Your task to perform on an android device: Find coffee shops on Maps Image 0: 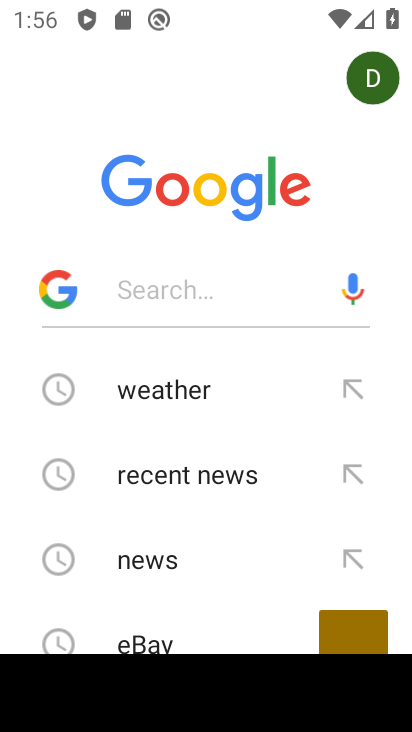
Step 0: press home button
Your task to perform on an android device: Find coffee shops on Maps Image 1: 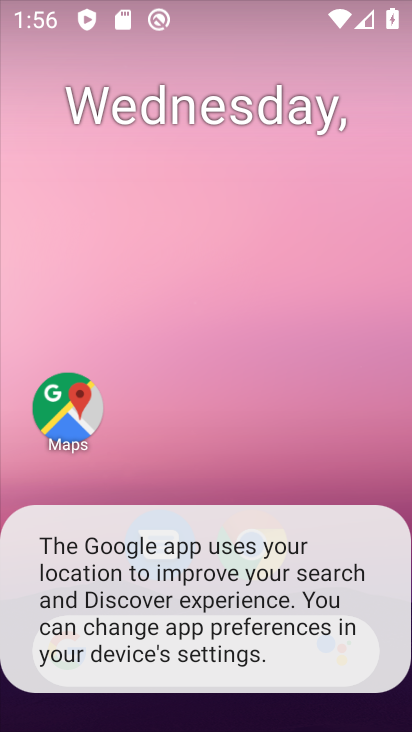
Step 1: click (71, 383)
Your task to perform on an android device: Find coffee shops on Maps Image 2: 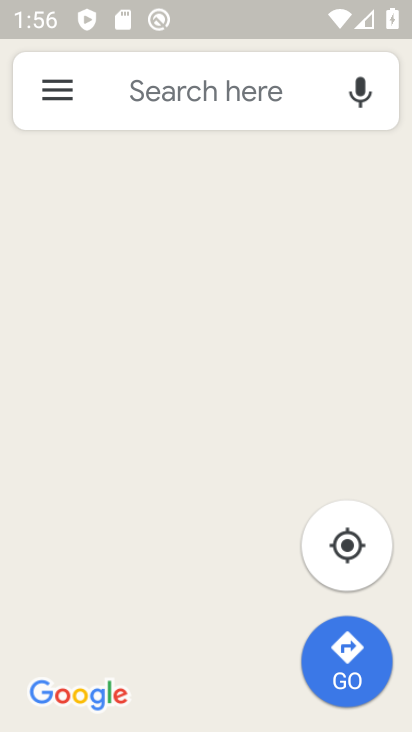
Step 2: click (198, 89)
Your task to perform on an android device: Find coffee shops on Maps Image 3: 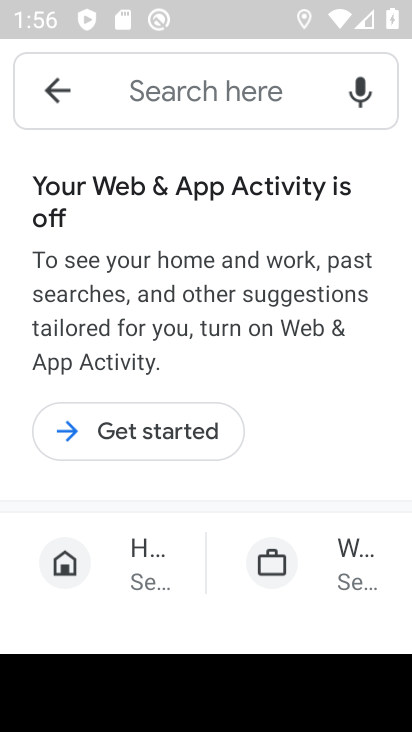
Step 3: type "coffee shops"
Your task to perform on an android device: Find coffee shops on Maps Image 4: 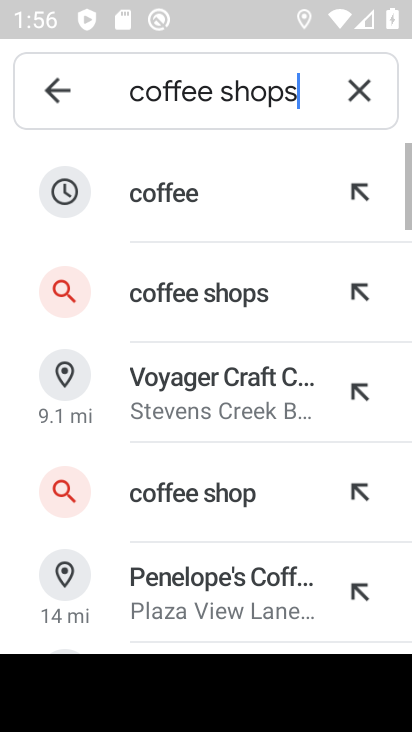
Step 4: click (173, 189)
Your task to perform on an android device: Find coffee shops on Maps Image 5: 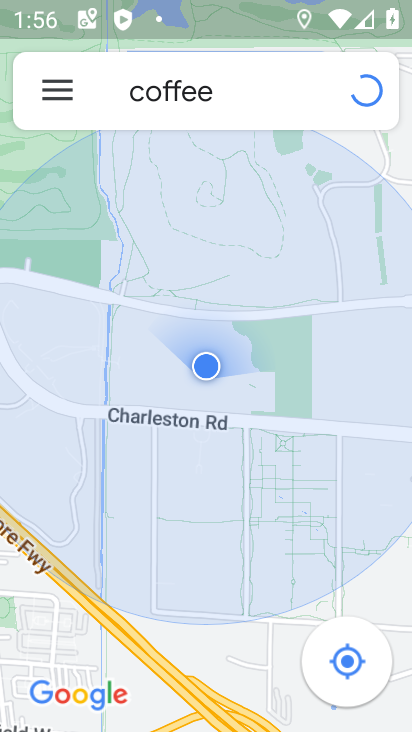
Step 5: task complete